Your task to perform on an android device: Go to calendar. Show me events next week Image 0: 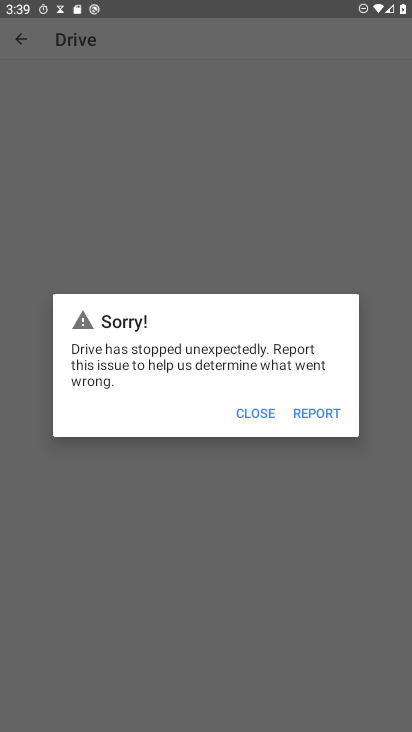
Step 0: press home button
Your task to perform on an android device: Go to calendar. Show me events next week Image 1: 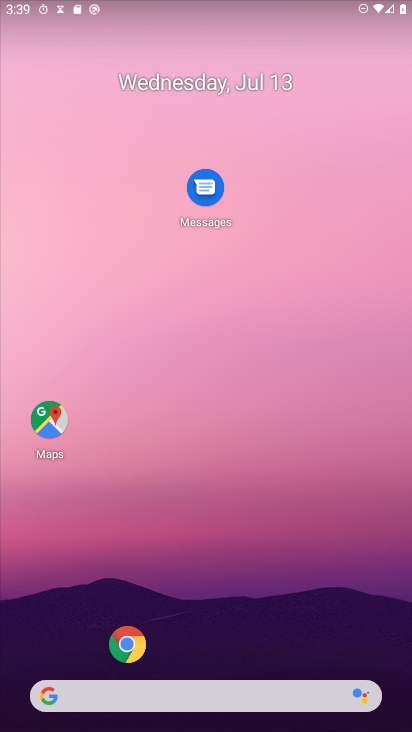
Step 1: click (205, 97)
Your task to perform on an android device: Go to calendar. Show me events next week Image 2: 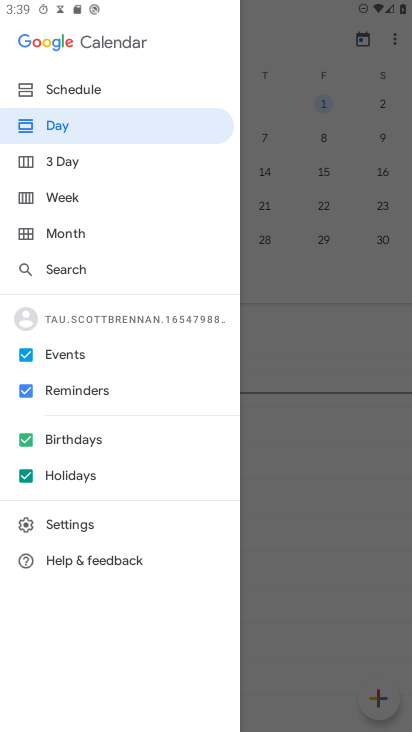
Step 2: click (297, 452)
Your task to perform on an android device: Go to calendar. Show me events next week Image 3: 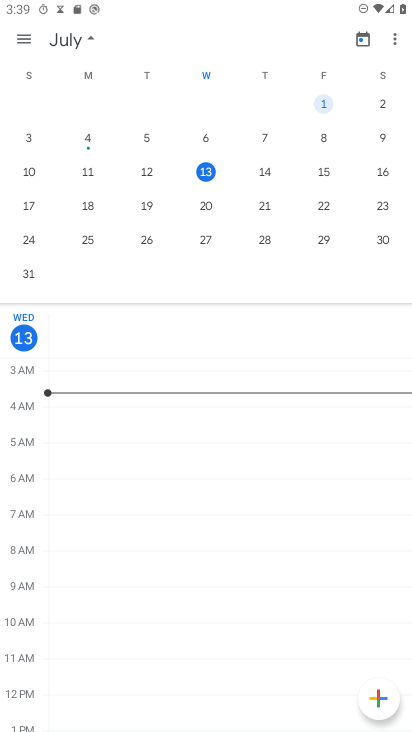
Step 3: task complete